Your task to perform on an android device: open chrome privacy settings Image 0: 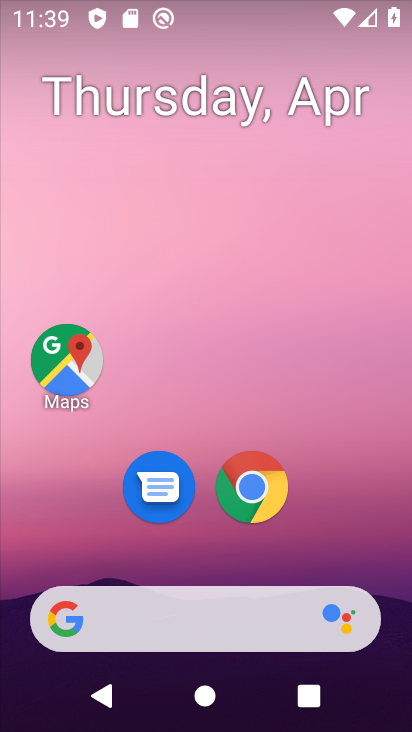
Step 0: click (260, 483)
Your task to perform on an android device: open chrome privacy settings Image 1: 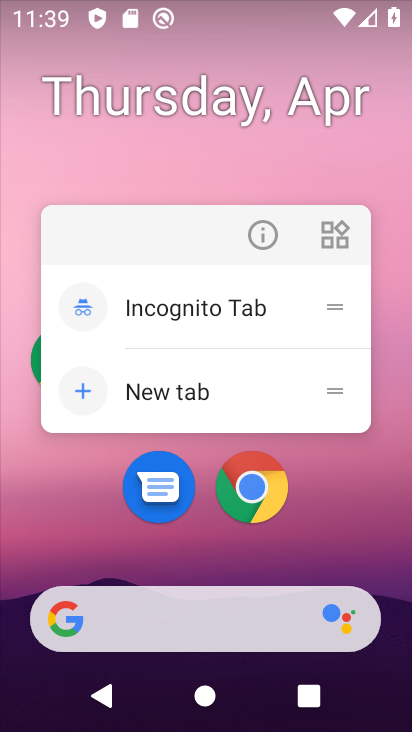
Step 1: click (260, 487)
Your task to perform on an android device: open chrome privacy settings Image 2: 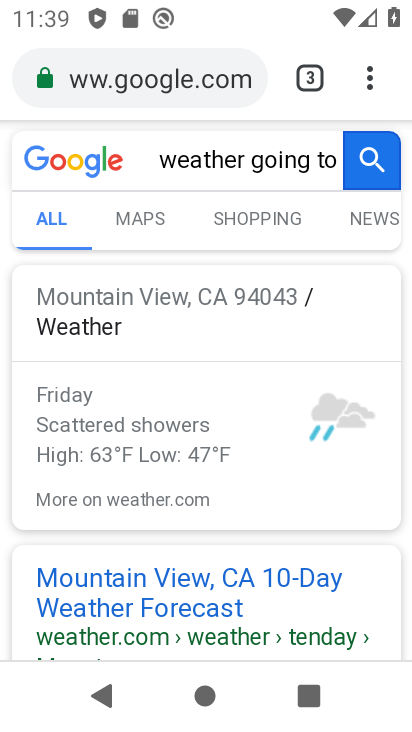
Step 2: click (356, 72)
Your task to perform on an android device: open chrome privacy settings Image 3: 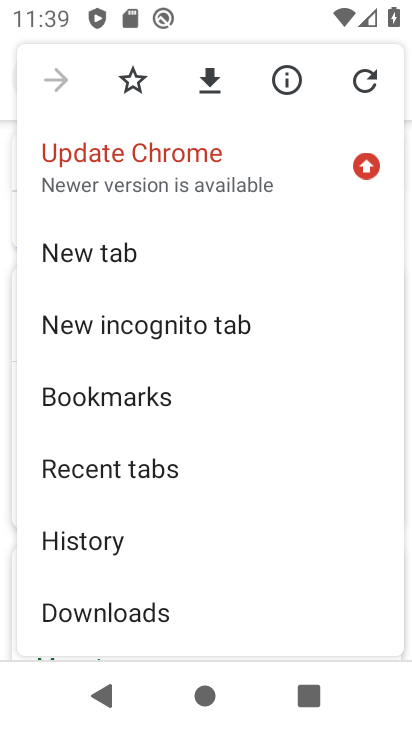
Step 3: drag from (233, 608) to (324, 274)
Your task to perform on an android device: open chrome privacy settings Image 4: 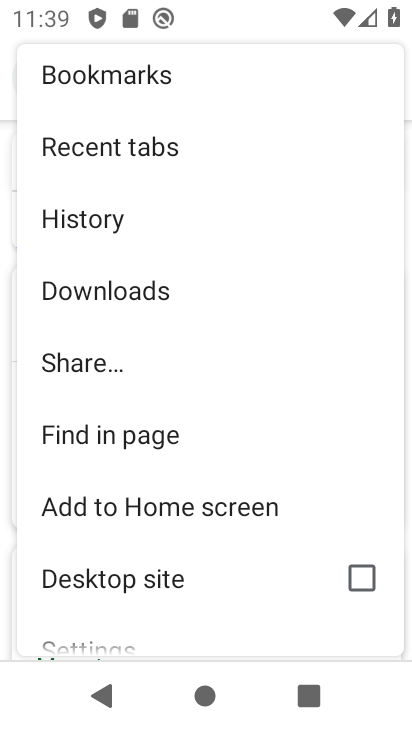
Step 4: drag from (187, 611) to (303, 317)
Your task to perform on an android device: open chrome privacy settings Image 5: 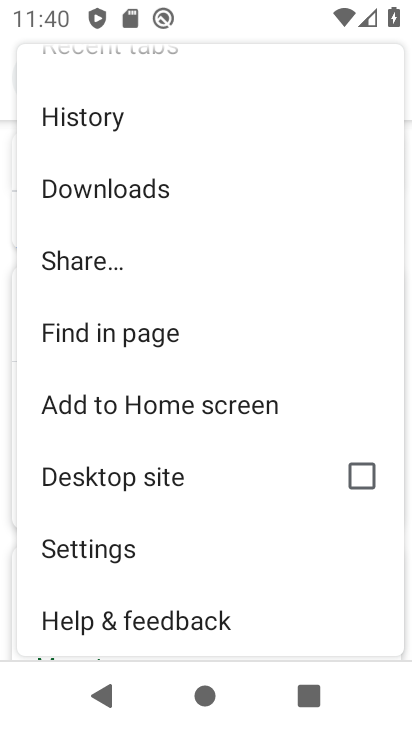
Step 5: click (138, 554)
Your task to perform on an android device: open chrome privacy settings Image 6: 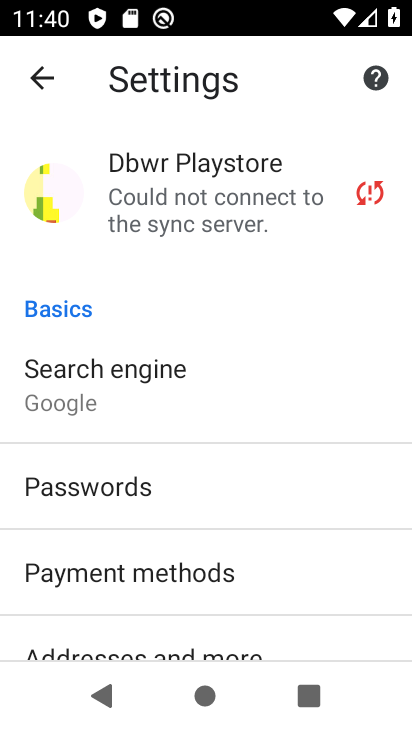
Step 6: drag from (161, 609) to (268, 212)
Your task to perform on an android device: open chrome privacy settings Image 7: 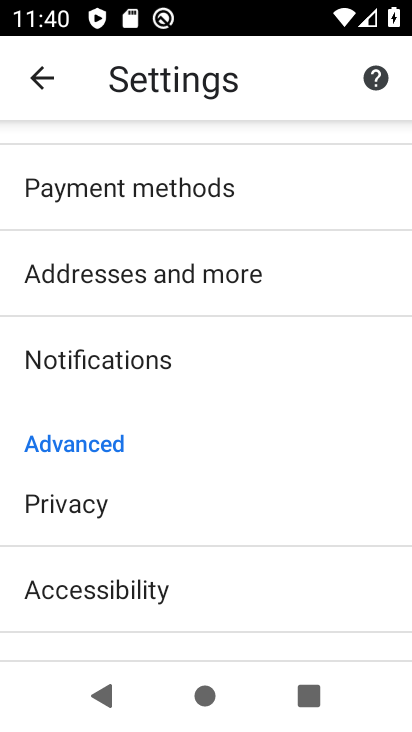
Step 7: click (107, 505)
Your task to perform on an android device: open chrome privacy settings Image 8: 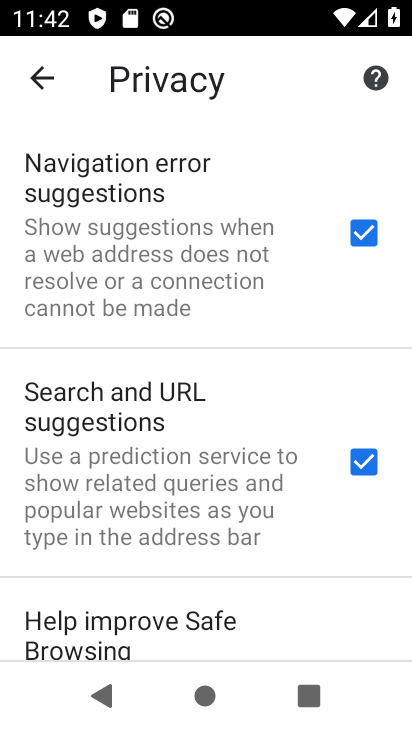
Step 8: task complete